Your task to perform on an android device: Do I have any events this weekend? Image 0: 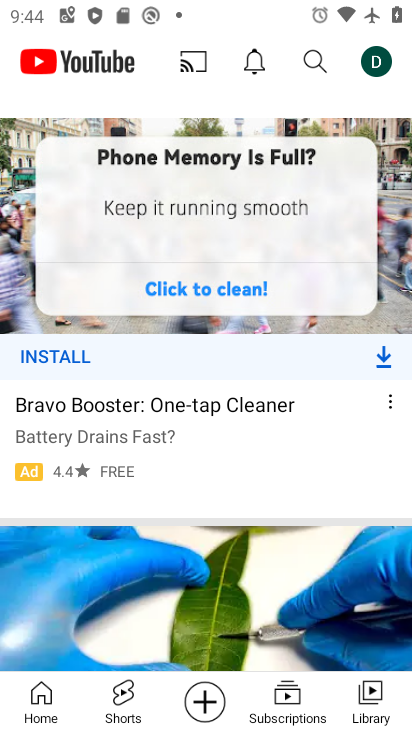
Step 0: press home button
Your task to perform on an android device: Do I have any events this weekend? Image 1: 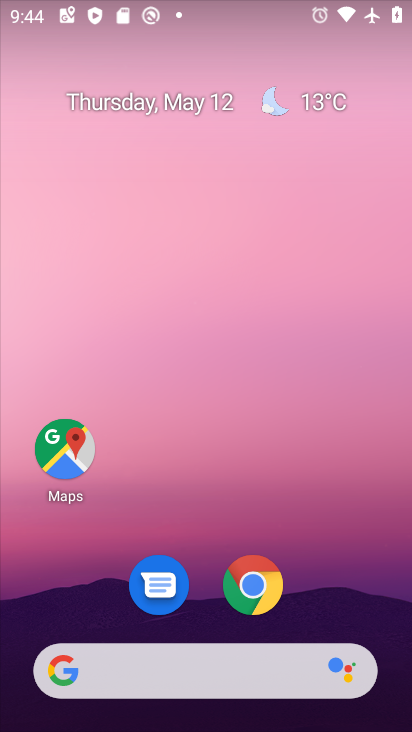
Step 1: drag from (205, 491) to (218, 67)
Your task to perform on an android device: Do I have any events this weekend? Image 2: 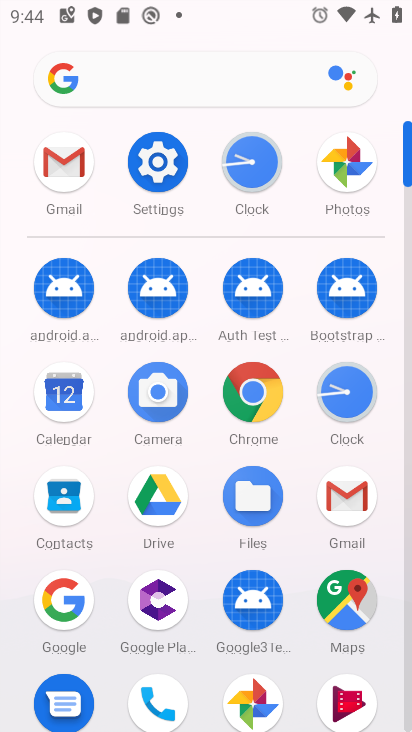
Step 2: click (76, 385)
Your task to perform on an android device: Do I have any events this weekend? Image 3: 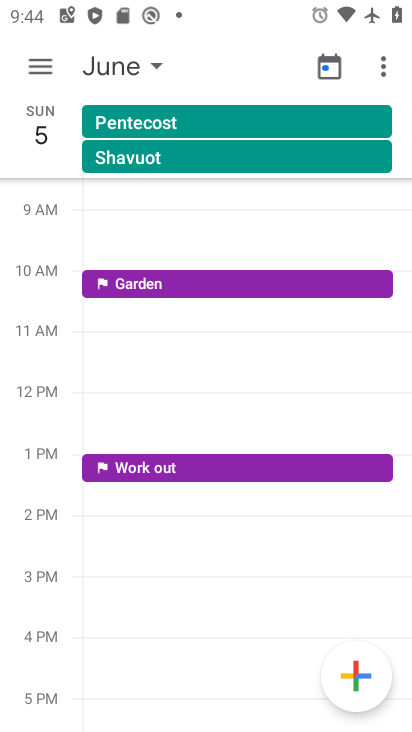
Step 3: click (40, 65)
Your task to perform on an android device: Do I have any events this weekend? Image 4: 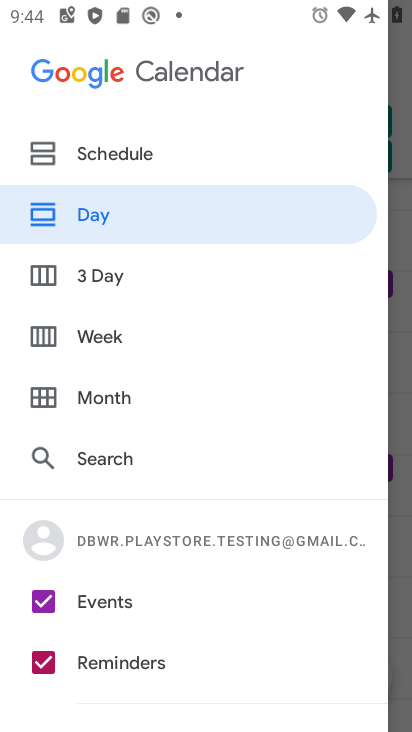
Step 4: click (103, 384)
Your task to perform on an android device: Do I have any events this weekend? Image 5: 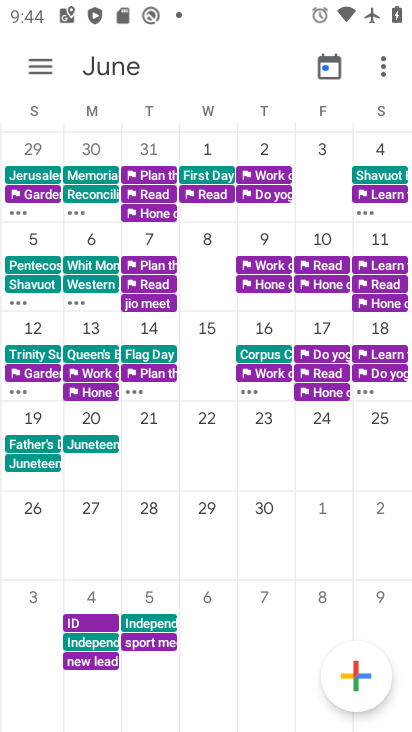
Step 5: drag from (146, 465) to (411, 365)
Your task to perform on an android device: Do I have any events this weekend? Image 6: 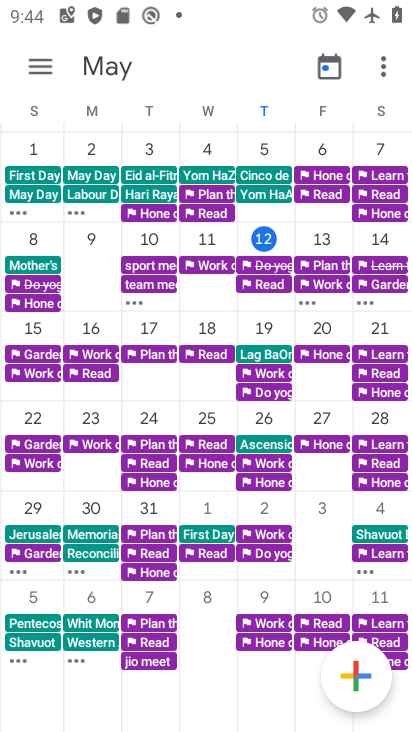
Step 6: click (272, 240)
Your task to perform on an android device: Do I have any events this weekend? Image 7: 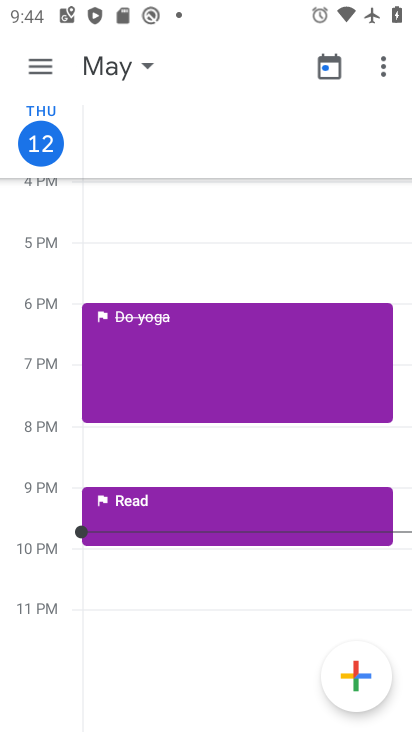
Step 7: click (44, 62)
Your task to perform on an android device: Do I have any events this weekend? Image 8: 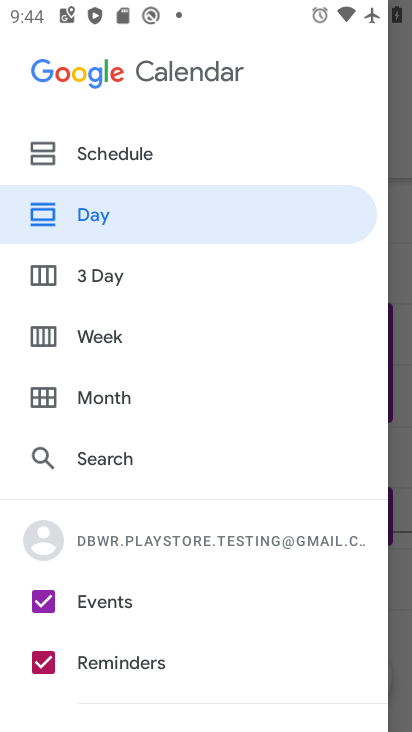
Step 8: click (47, 145)
Your task to perform on an android device: Do I have any events this weekend? Image 9: 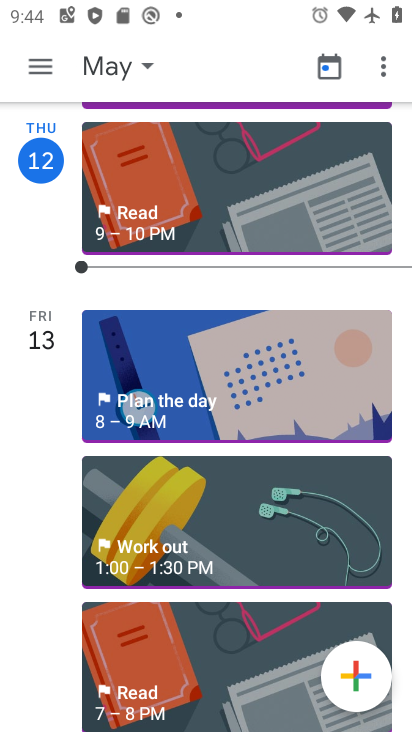
Step 9: task complete